Your task to perform on an android device: What's on my calendar tomorrow? Image 0: 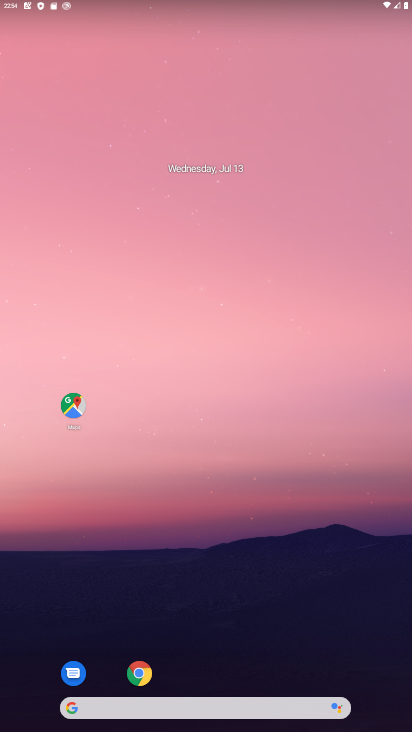
Step 0: click (149, 107)
Your task to perform on an android device: What's on my calendar tomorrow? Image 1: 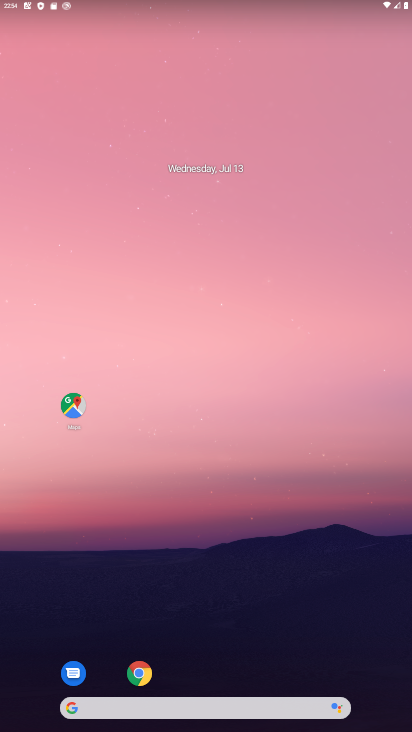
Step 1: drag from (208, 518) to (215, 171)
Your task to perform on an android device: What's on my calendar tomorrow? Image 2: 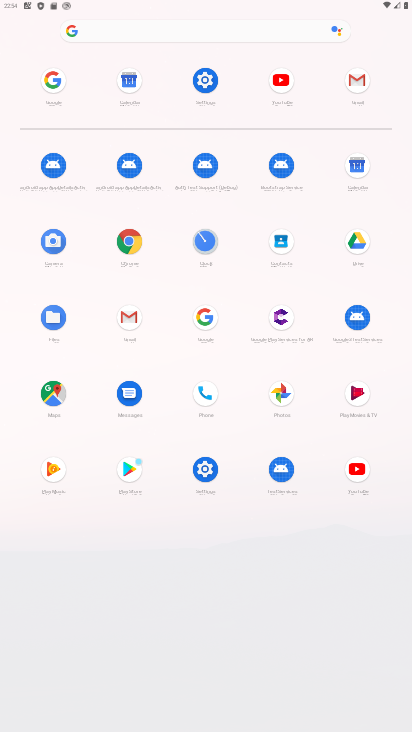
Step 2: click (131, 73)
Your task to perform on an android device: What's on my calendar tomorrow? Image 3: 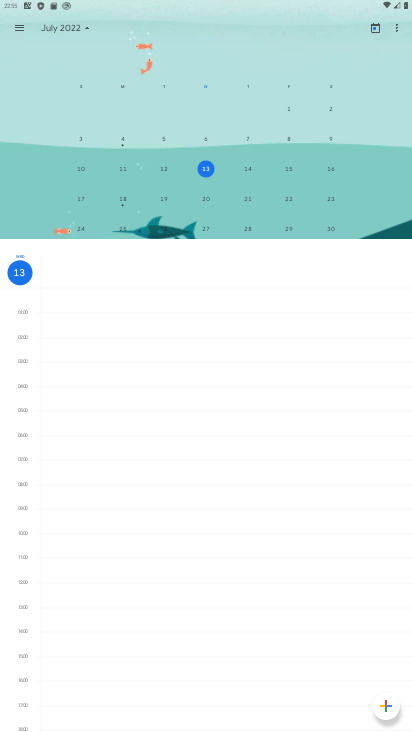
Step 3: click (72, 28)
Your task to perform on an android device: What's on my calendar tomorrow? Image 4: 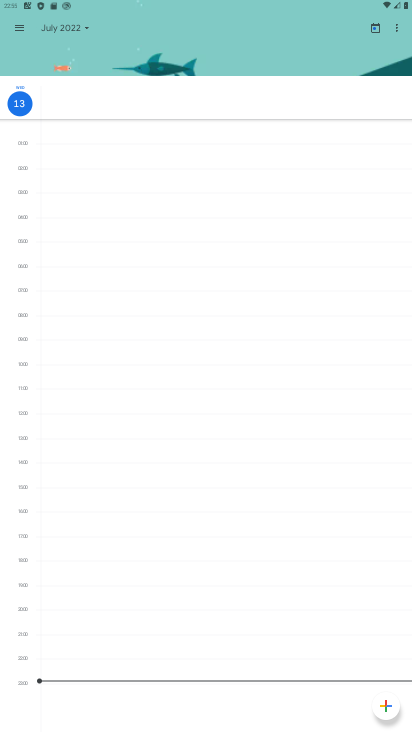
Step 4: task complete